Your task to perform on an android device: clear history in the chrome app Image 0: 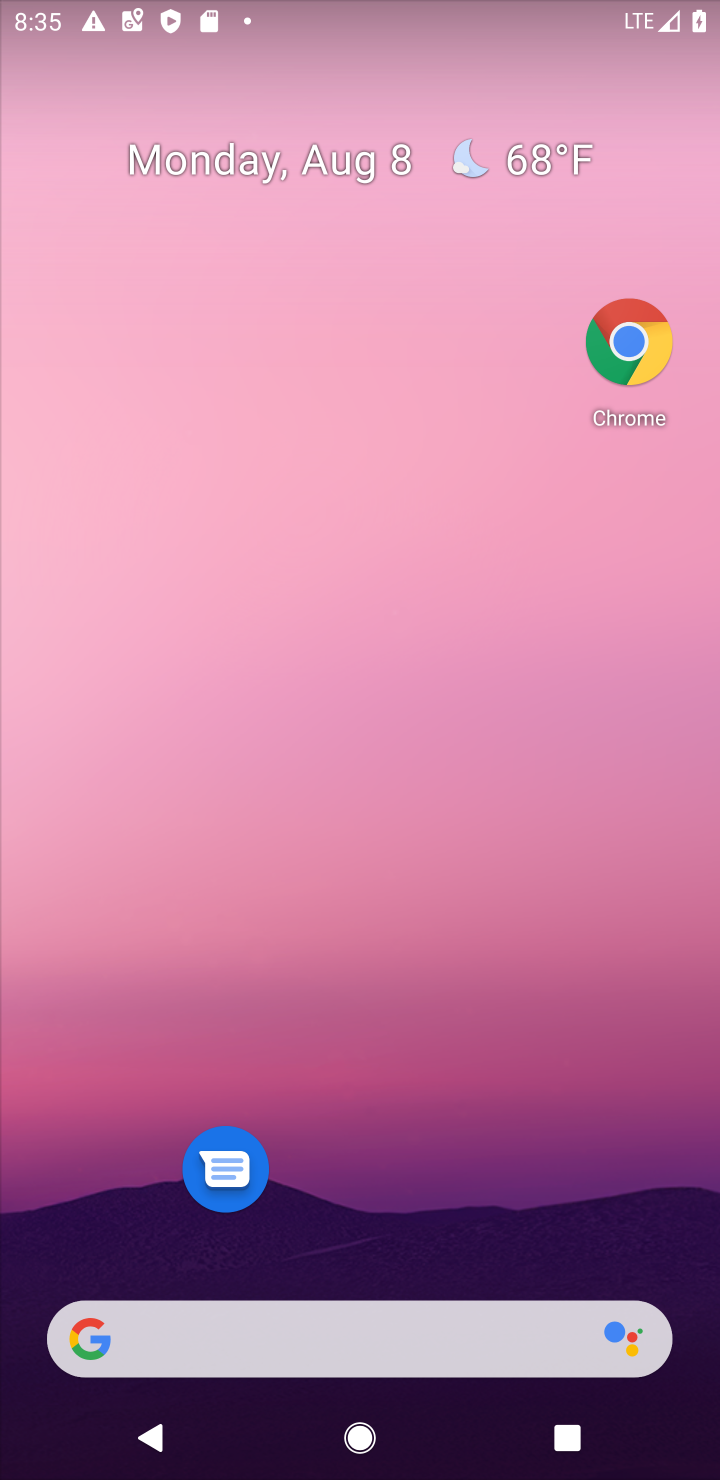
Step 0: click (645, 328)
Your task to perform on an android device: clear history in the chrome app Image 1: 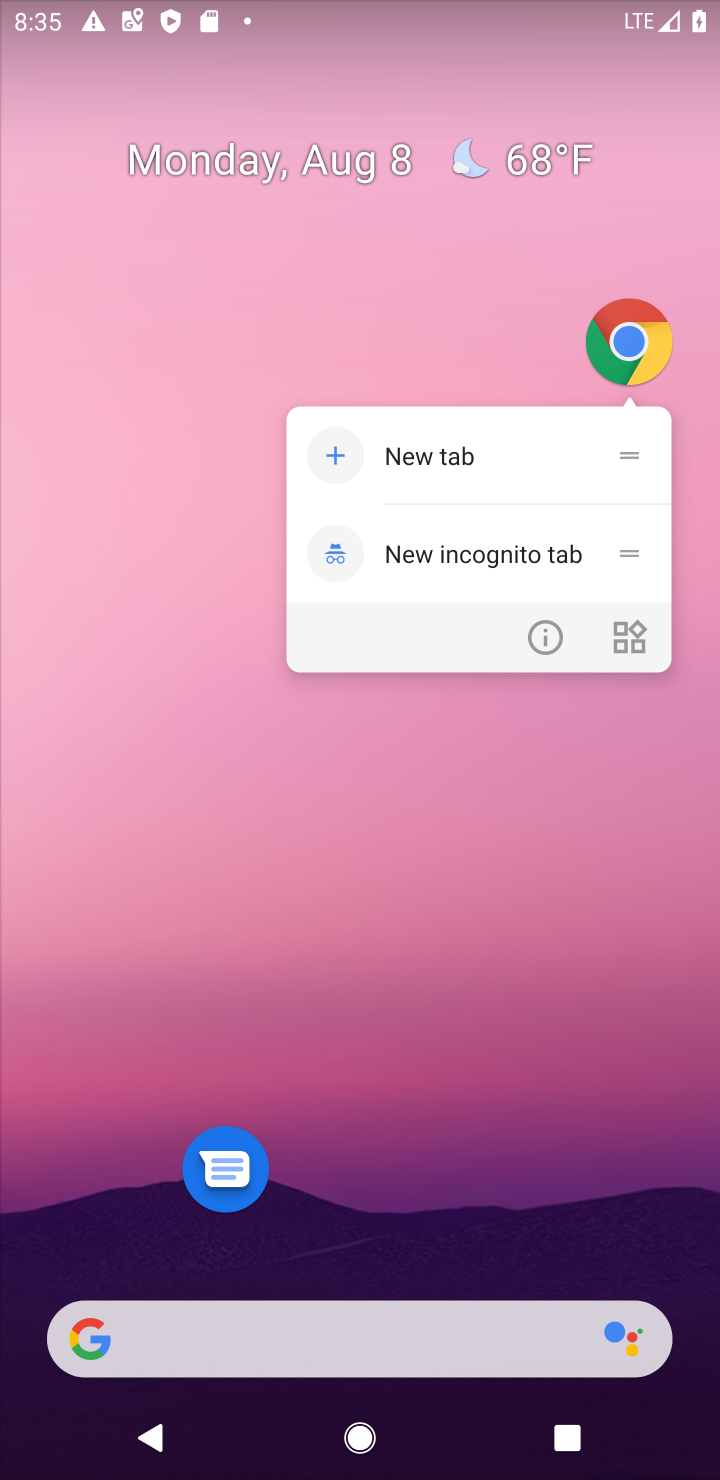
Step 1: click (625, 348)
Your task to perform on an android device: clear history in the chrome app Image 2: 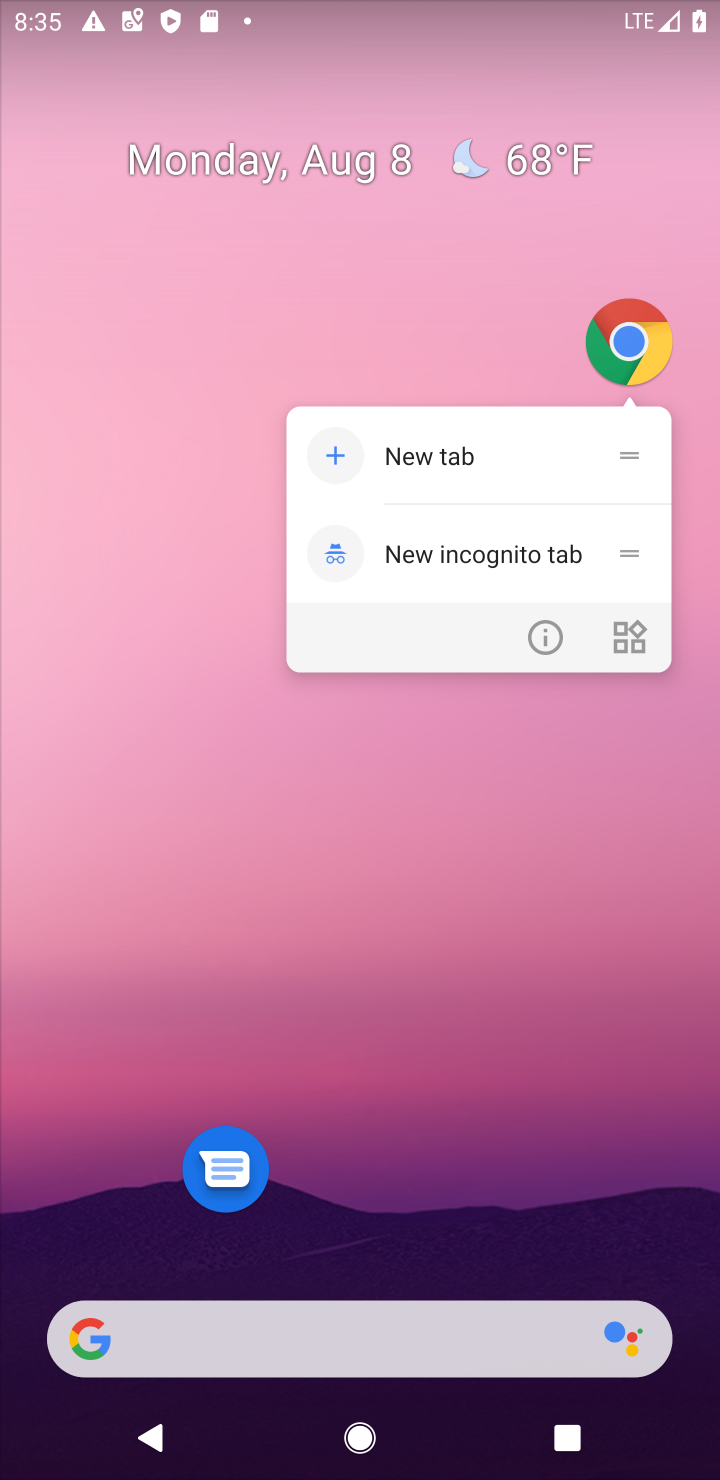
Step 2: click (629, 345)
Your task to perform on an android device: clear history in the chrome app Image 3: 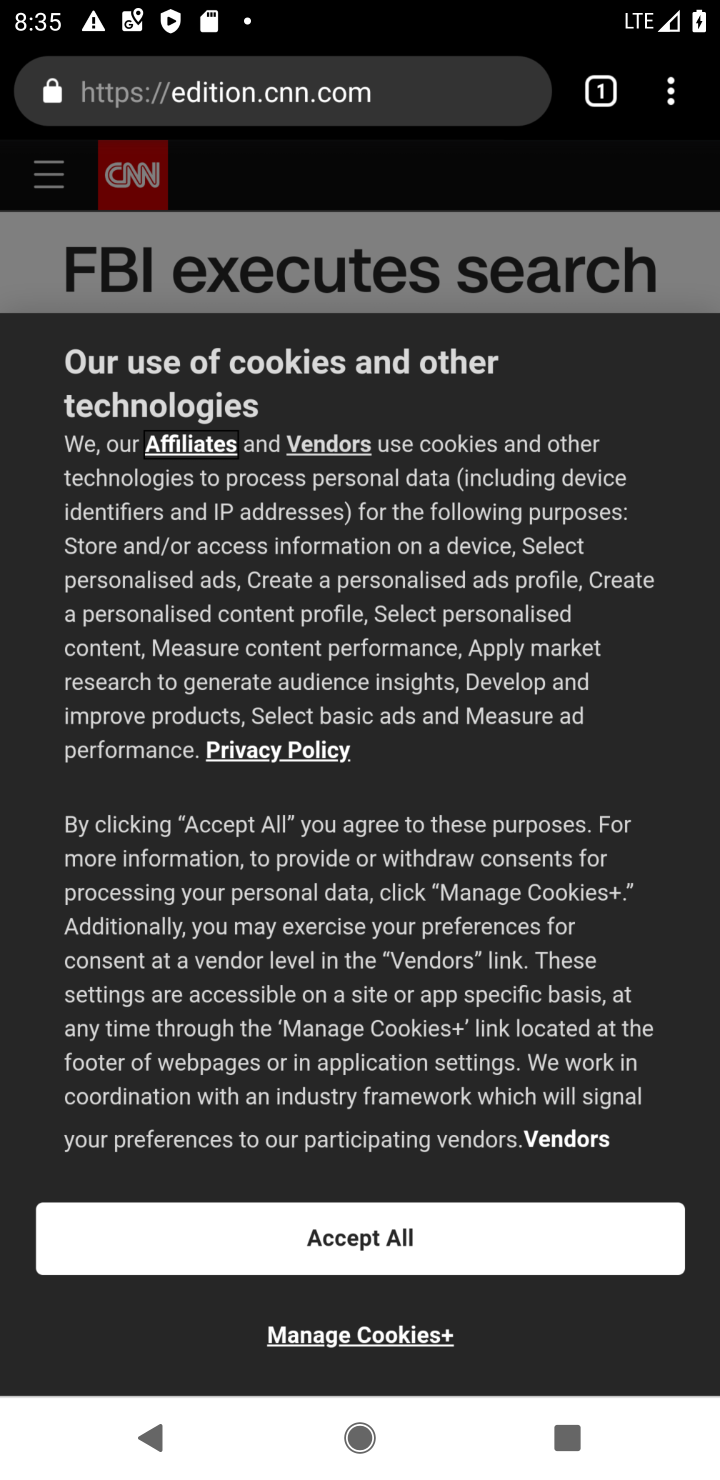
Step 3: drag from (670, 88) to (360, 519)
Your task to perform on an android device: clear history in the chrome app Image 4: 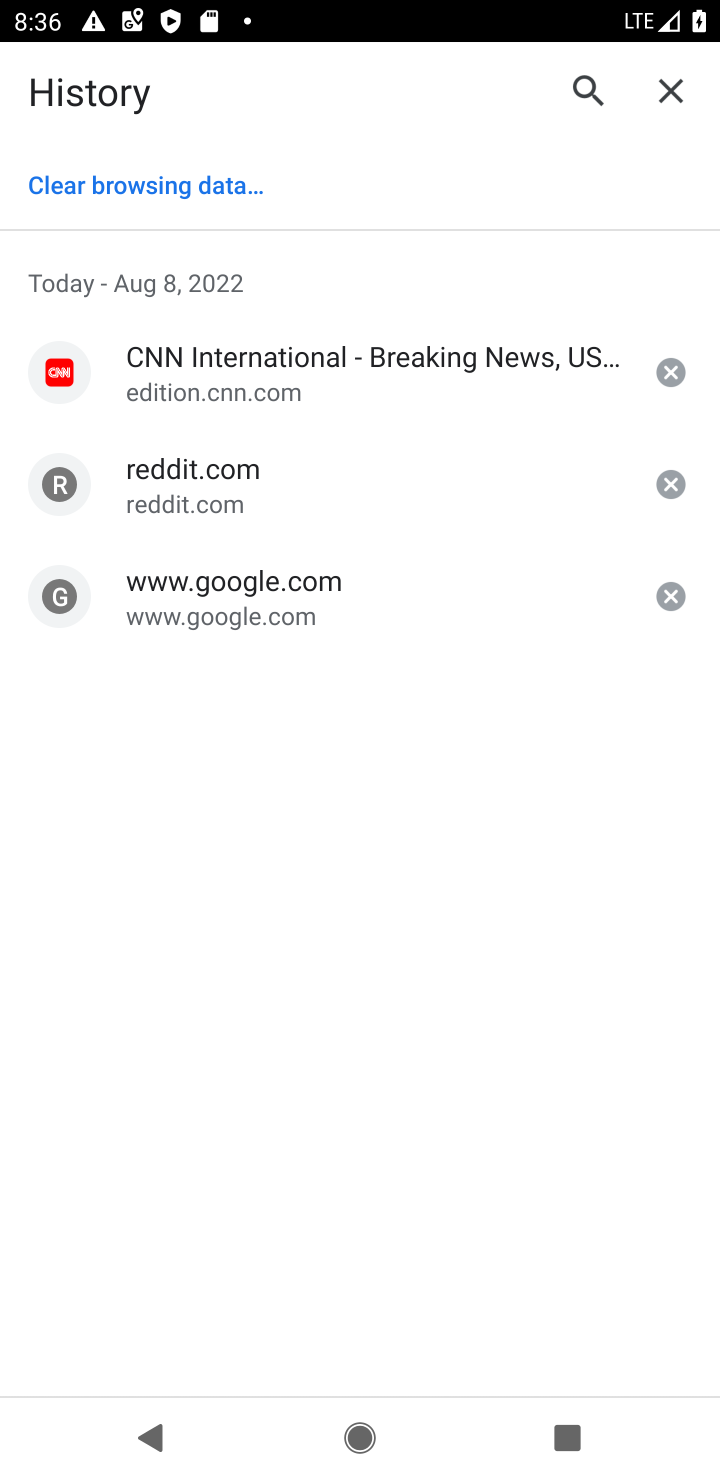
Step 4: click (190, 182)
Your task to perform on an android device: clear history in the chrome app Image 5: 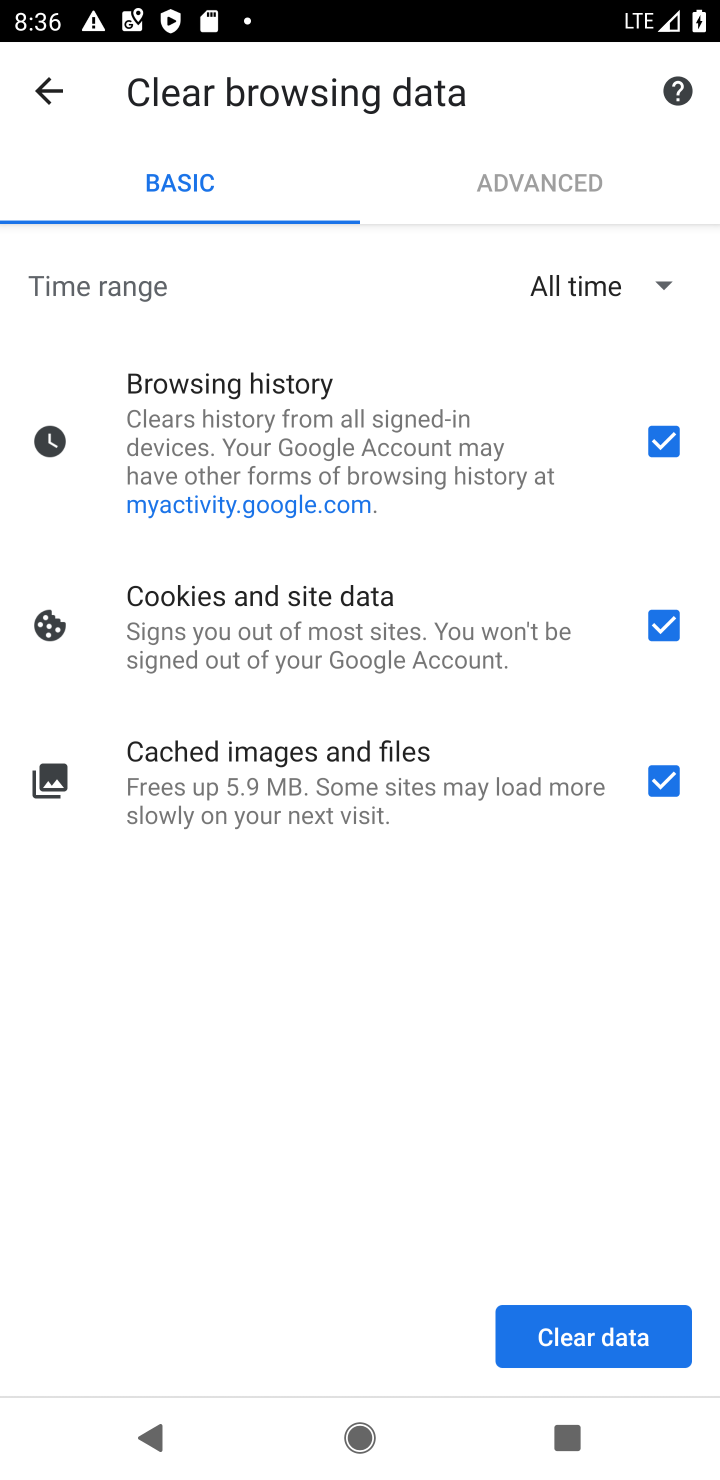
Step 5: click (623, 1344)
Your task to perform on an android device: clear history in the chrome app Image 6: 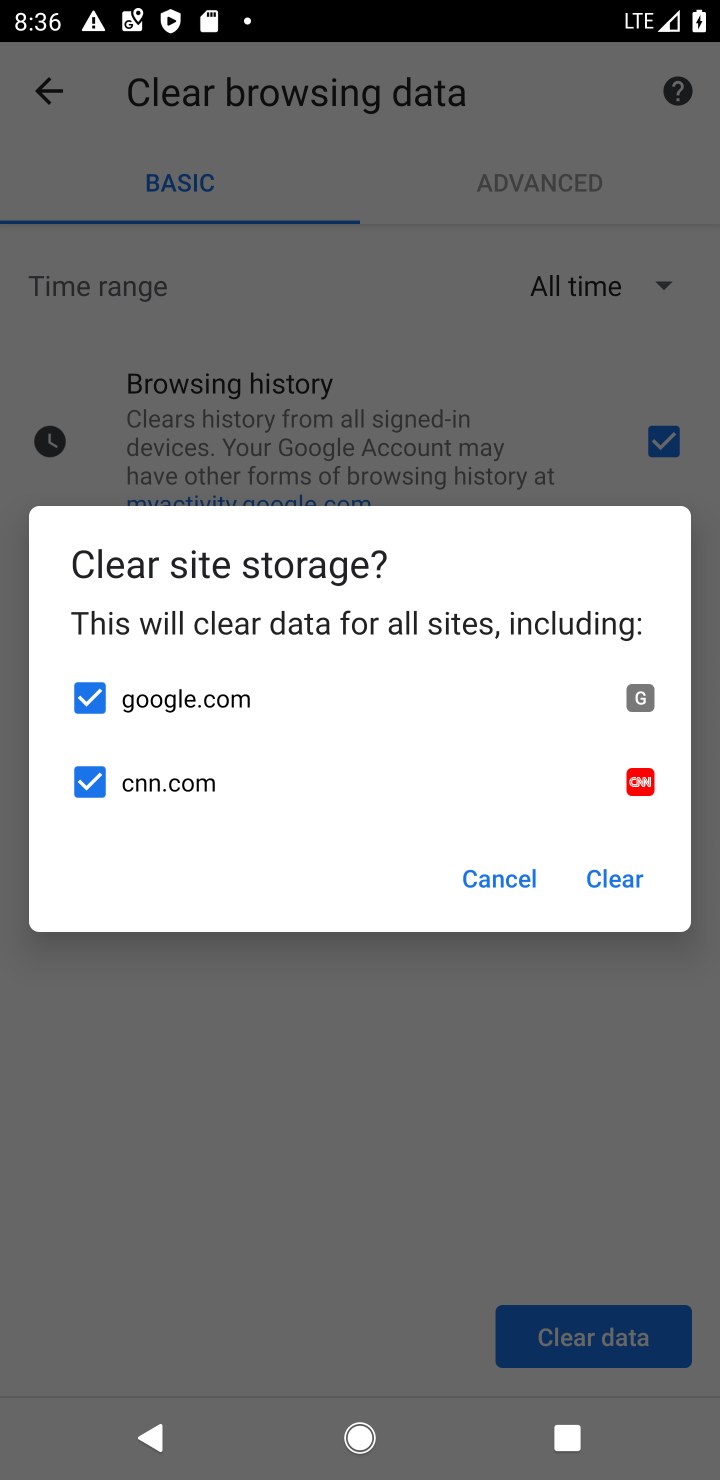
Step 6: click (603, 890)
Your task to perform on an android device: clear history in the chrome app Image 7: 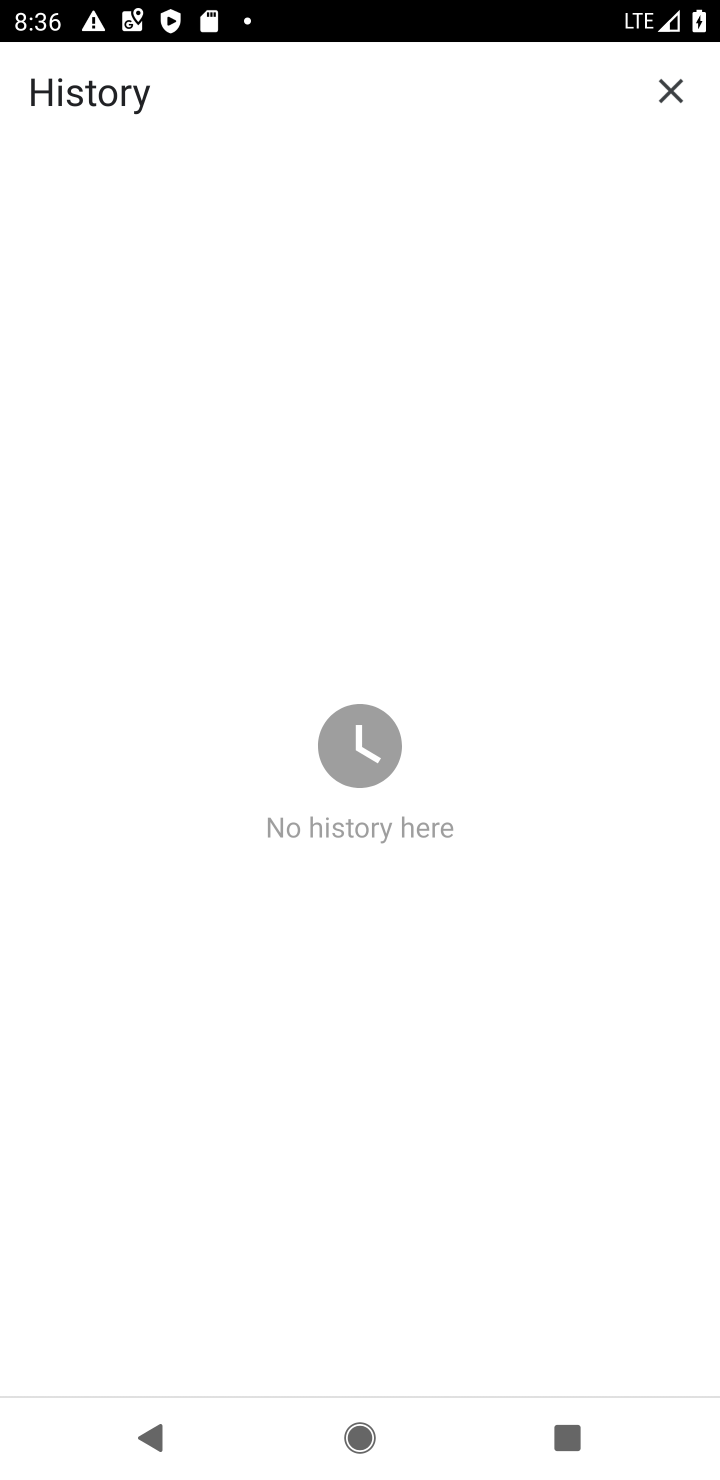
Step 7: task complete